Your task to perform on an android device: Go to Wikipedia Image 0: 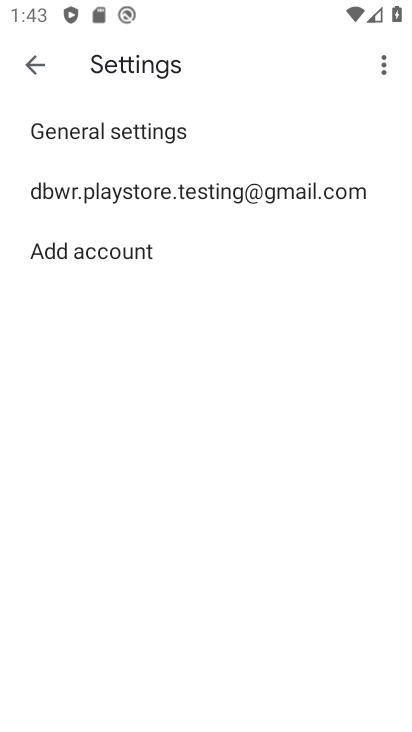
Step 0: press back button
Your task to perform on an android device: Go to Wikipedia Image 1: 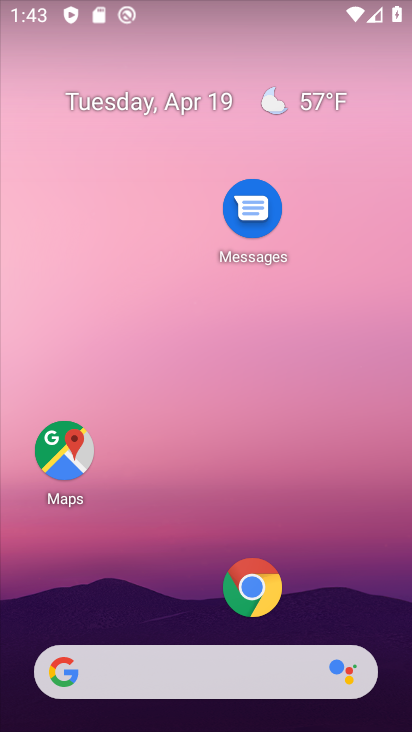
Step 1: click (258, 576)
Your task to perform on an android device: Go to Wikipedia Image 2: 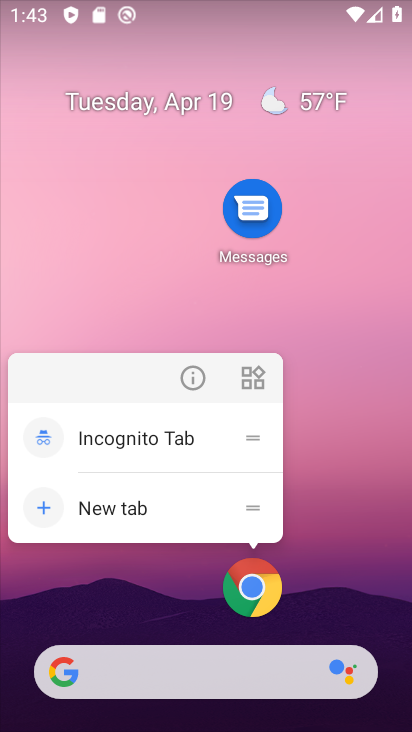
Step 2: click (258, 595)
Your task to perform on an android device: Go to Wikipedia Image 3: 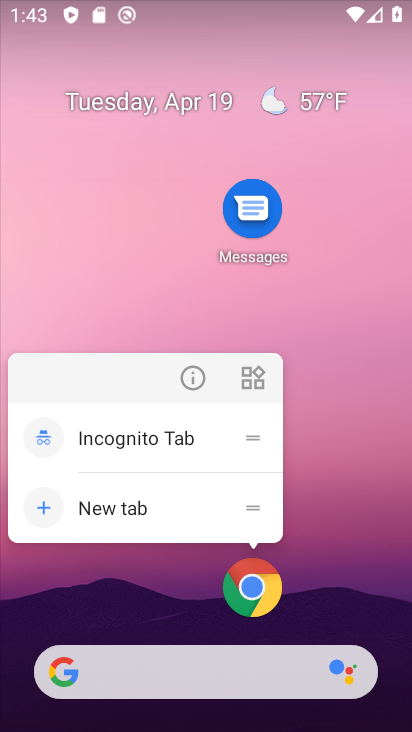
Step 3: click (258, 595)
Your task to perform on an android device: Go to Wikipedia Image 4: 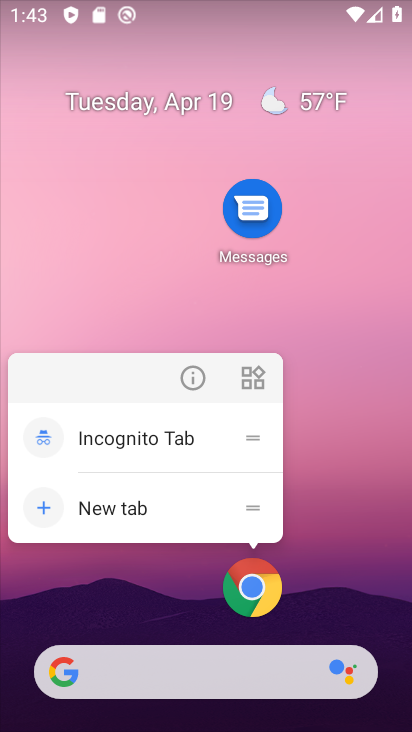
Step 4: click (258, 595)
Your task to perform on an android device: Go to Wikipedia Image 5: 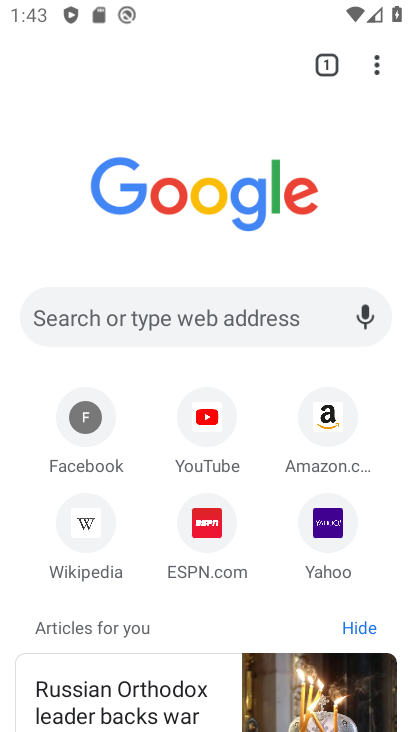
Step 5: click (88, 527)
Your task to perform on an android device: Go to Wikipedia Image 6: 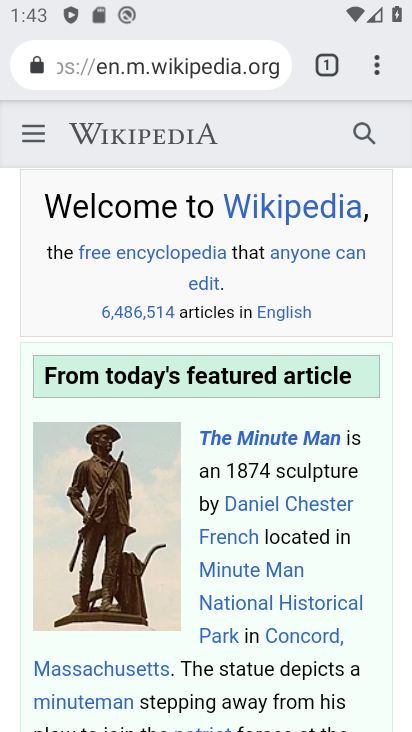
Step 6: task complete